Your task to perform on an android device: choose inbox layout in the gmail app Image 0: 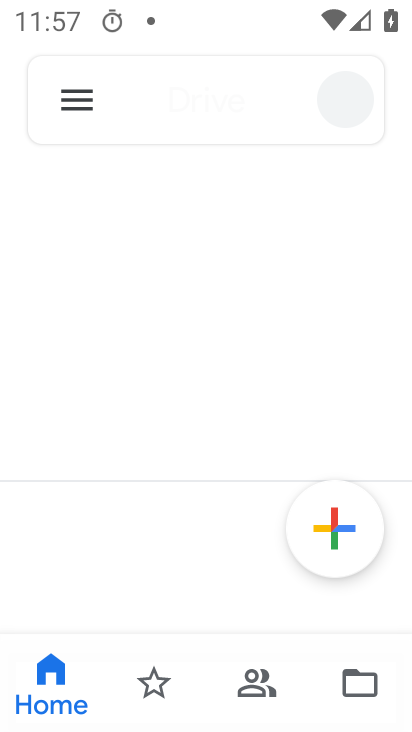
Step 0: press home button
Your task to perform on an android device: choose inbox layout in the gmail app Image 1: 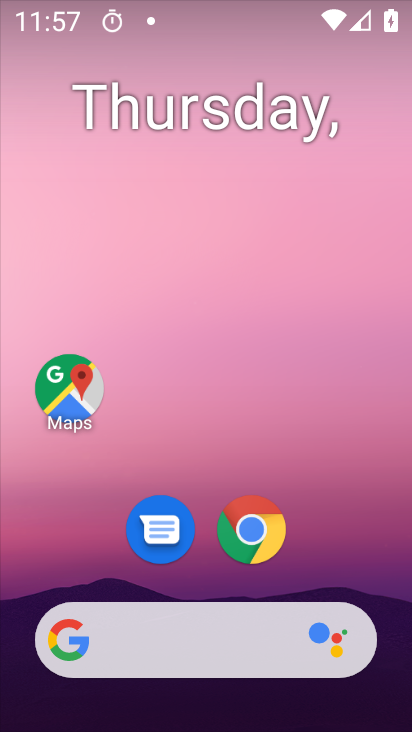
Step 1: drag from (323, 538) to (401, 251)
Your task to perform on an android device: choose inbox layout in the gmail app Image 2: 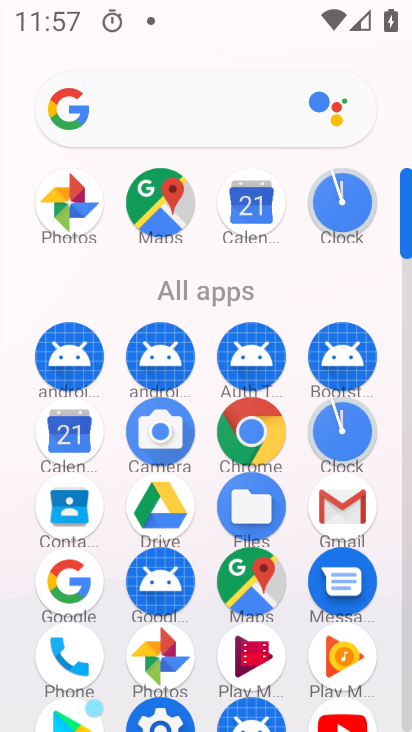
Step 2: click (342, 504)
Your task to perform on an android device: choose inbox layout in the gmail app Image 3: 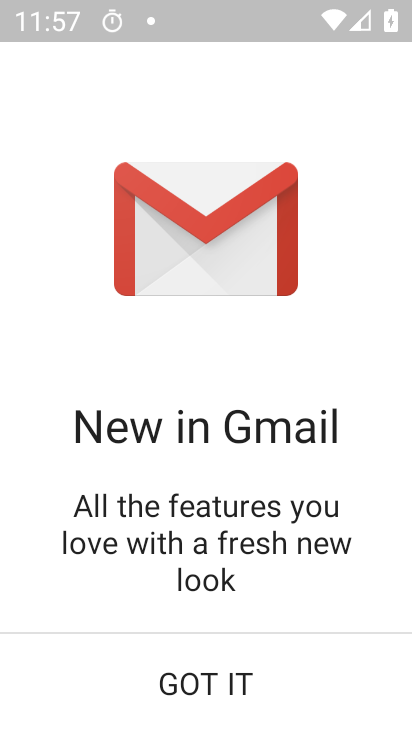
Step 3: click (232, 696)
Your task to perform on an android device: choose inbox layout in the gmail app Image 4: 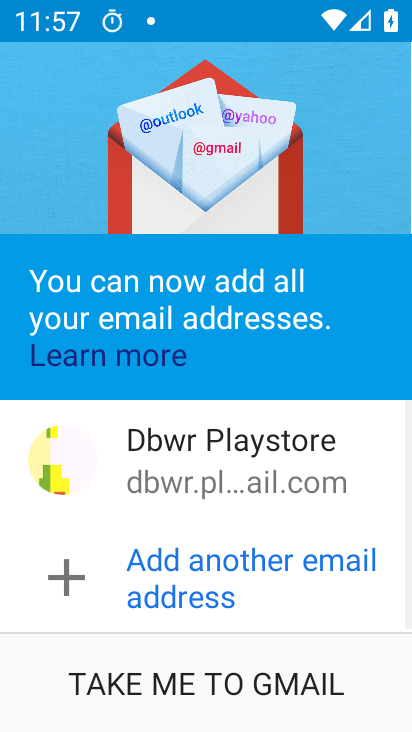
Step 4: click (205, 703)
Your task to perform on an android device: choose inbox layout in the gmail app Image 5: 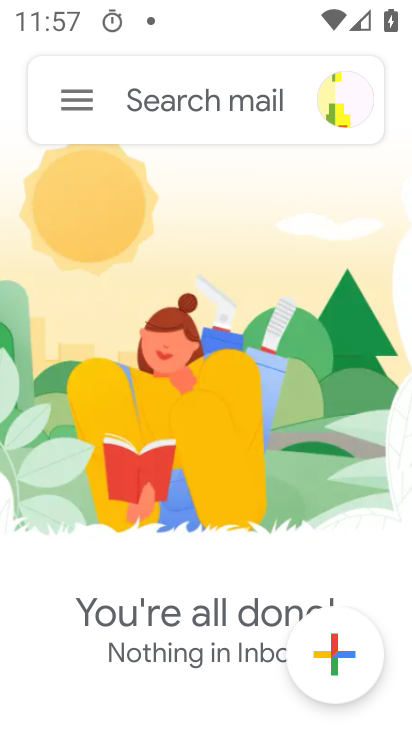
Step 5: click (91, 104)
Your task to perform on an android device: choose inbox layout in the gmail app Image 6: 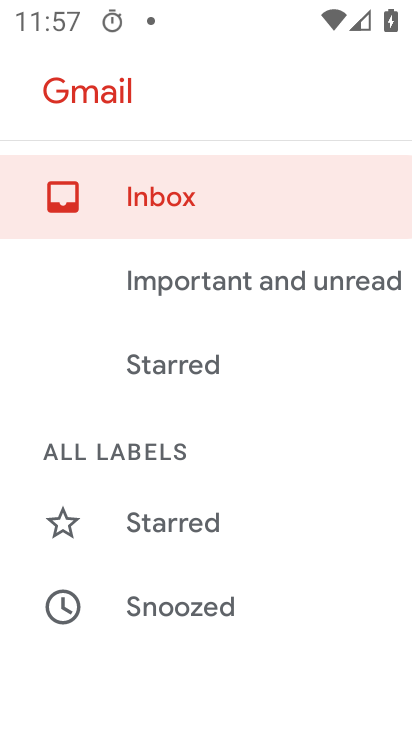
Step 6: drag from (167, 551) to (215, 337)
Your task to perform on an android device: choose inbox layout in the gmail app Image 7: 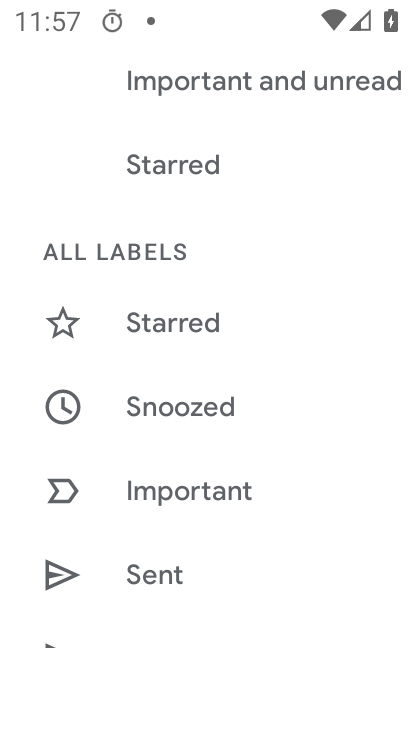
Step 7: drag from (143, 501) to (203, 265)
Your task to perform on an android device: choose inbox layout in the gmail app Image 8: 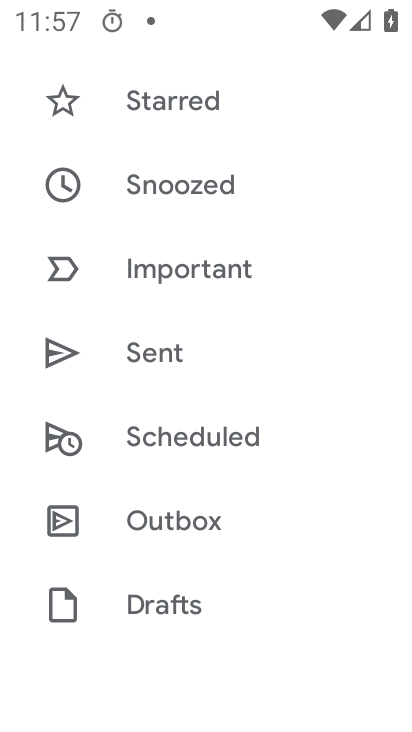
Step 8: drag from (190, 555) to (222, 322)
Your task to perform on an android device: choose inbox layout in the gmail app Image 9: 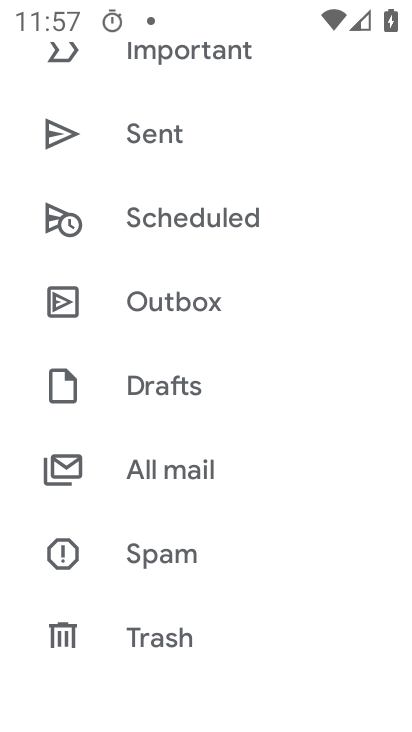
Step 9: drag from (132, 588) to (194, 347)
Your task to perform on an android device: choose inbox layout in the gmail app Image 10: 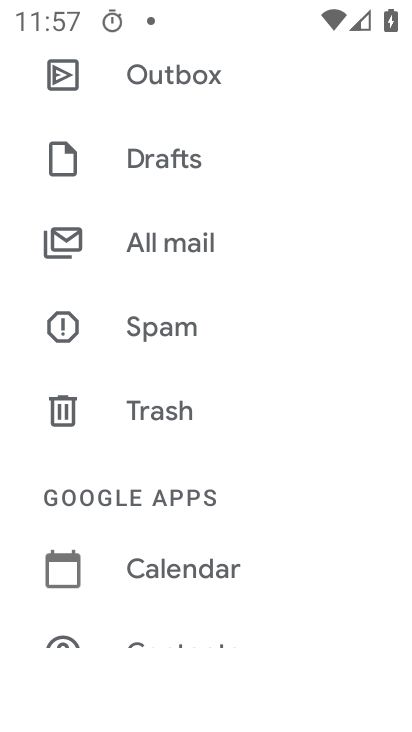
Step 10: drag from (145, 544) to (169, 313)
Your task to perform on an android device: choose inbox layout in the gmail app Image 11: 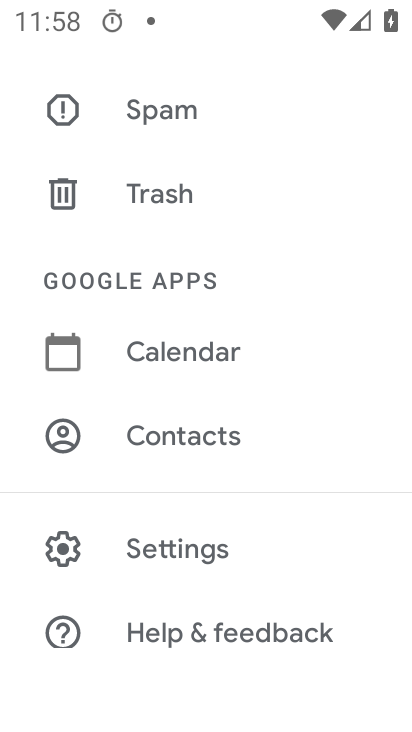
Step 11: click (152, 563)
Your task to perform on an android device: choose inbox layout in the gmail app Image 12: 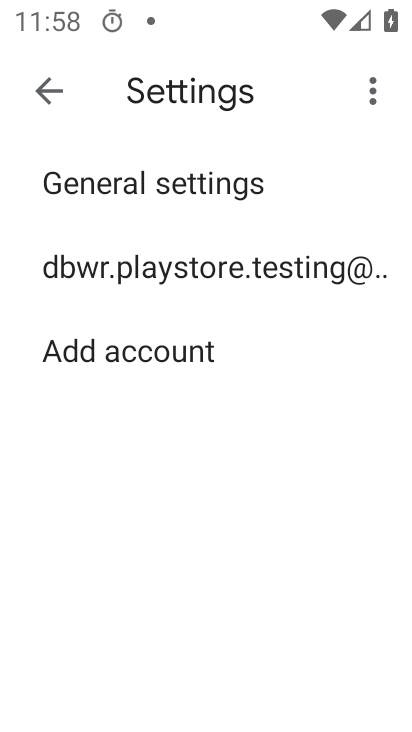
Step 12: click (143, 262)
Your task to perform on an android device: choose inbox layout in the gmail app Image 13: 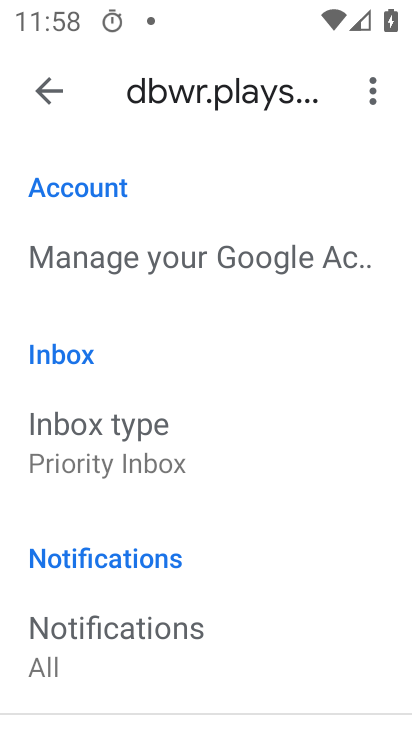
Step 13: click (108, 447)
Your task to perform on an android device: choose inbox layout in the gmail app Image 14: 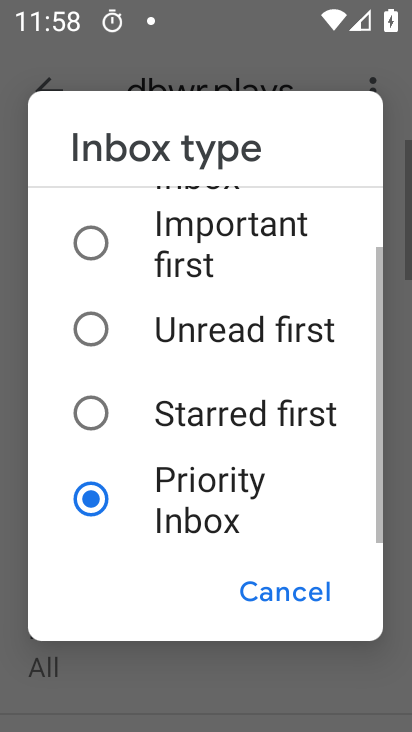
Step 14: drag from (99, 241) to (91, 453)
Your task to perform on an android device: choose inbox layout in the gmail app Image 15: 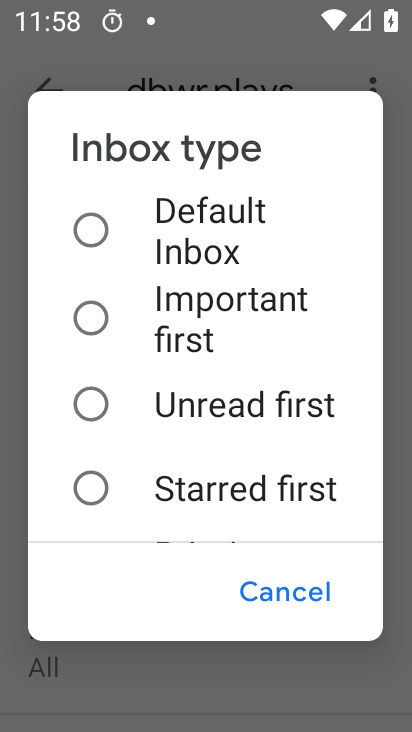
Step 15: click (97, 222)
Your task to perform on an android device: choose inbox layout in the gmail app Image 16: 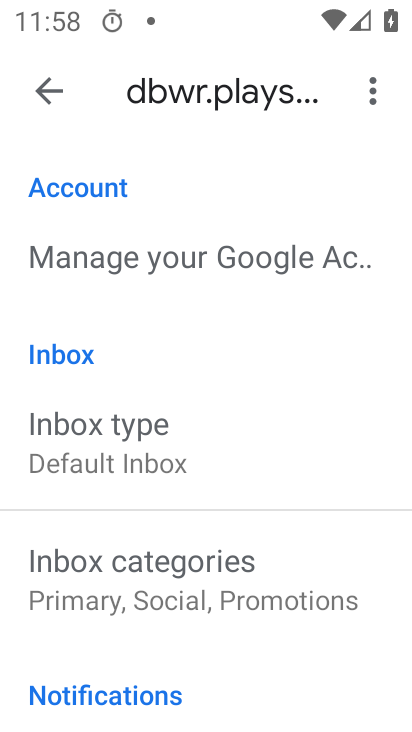
Step 16: task complete